Your task to perform on an android device: Is it going to rain this weekend? Image 0: 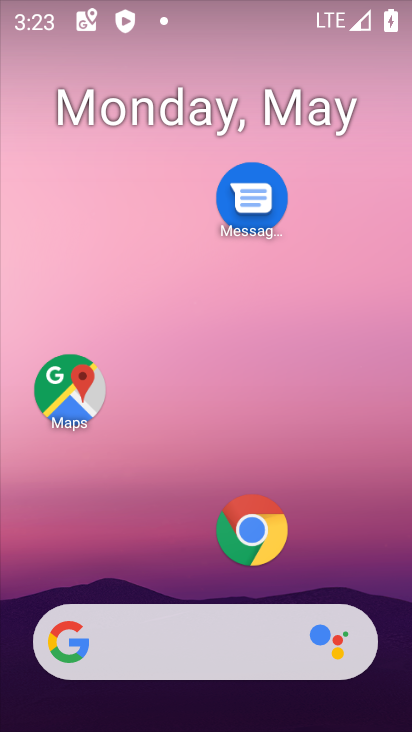
Step 0: click (176, 635)
Your task to perform on an android device: Is it going to rain this weekend? Image 1: 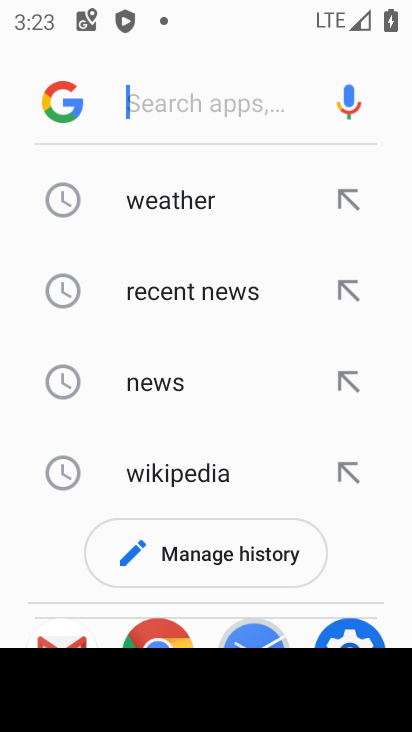
Step 1: click (173, 200)
Your task to perform on an android device: Is it going to rain this weekend? Image 2: 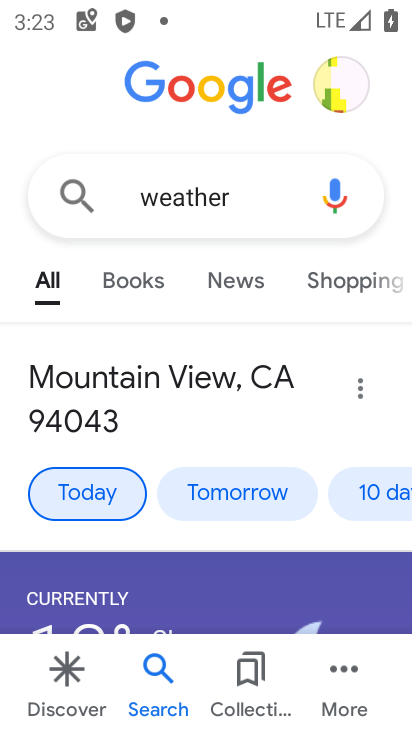
Step 2: task complete